Your task to perform on an android device: Open the web browser Image 0: 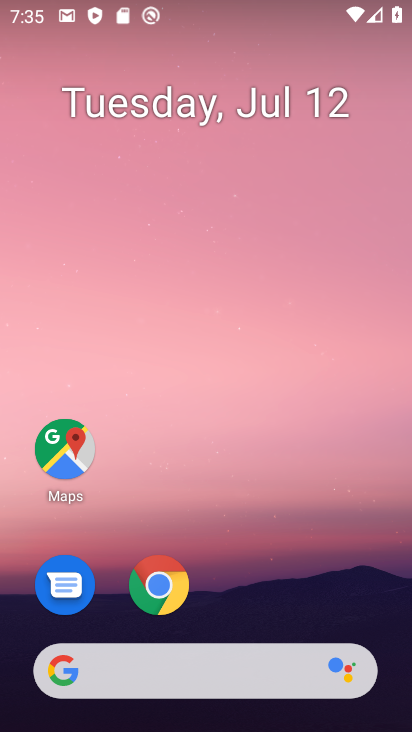
Step 0: click (161, 590)
Your task to perform on an android device: Open the web browser Image 1: 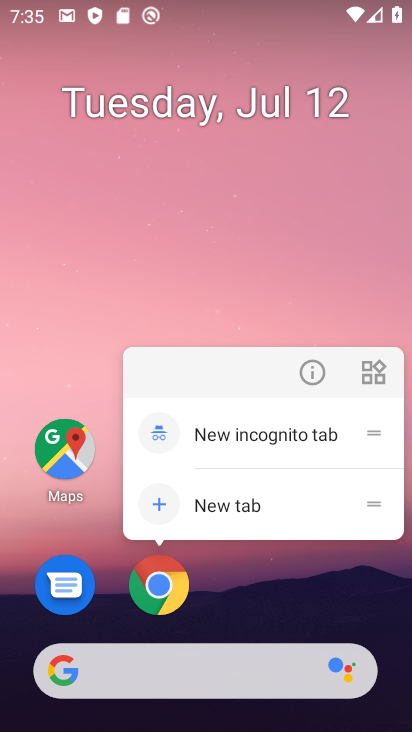
Step 1: click (161, 592)
Your task to perform on an android device: Open the web browser Image 2: 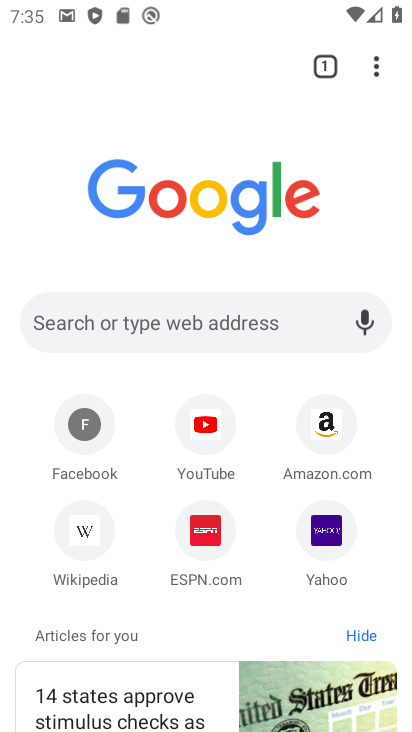
Step 2: click (206, 323)
Your task to perform on an android device: Open the web browser Image 3: 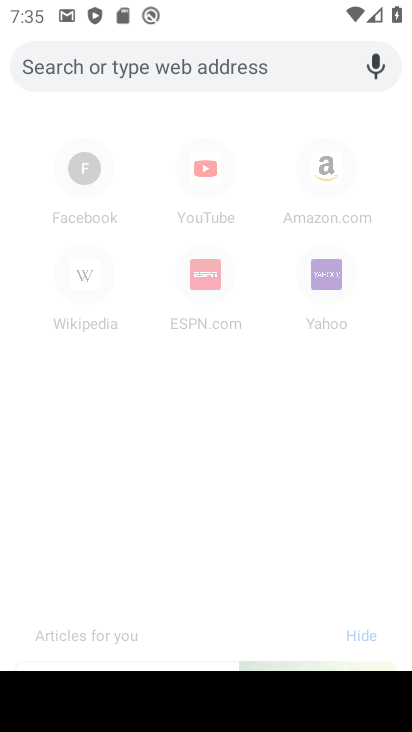
Step 3: task complete